Your task to perform on an android device: turn pop-ups off in chrome Image 0: 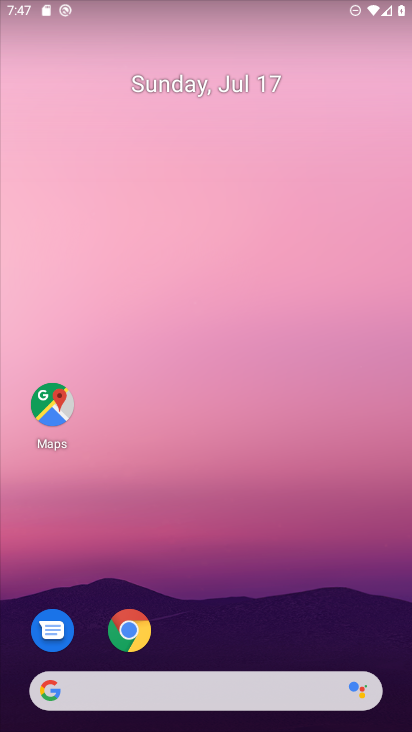
Step 0: click (126, 630)
Your task to perform on an android device: turn pop-ups off in chrome Image 1: 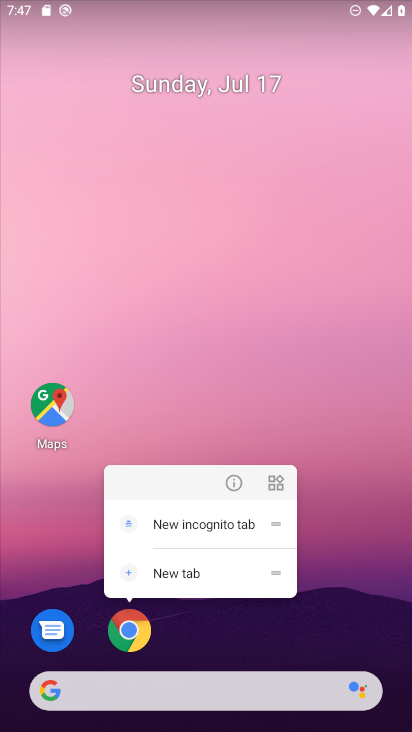
Step 1: click (128, 646)
Your task to perform on an android device: turn pop-ups off in chrome Image 2: 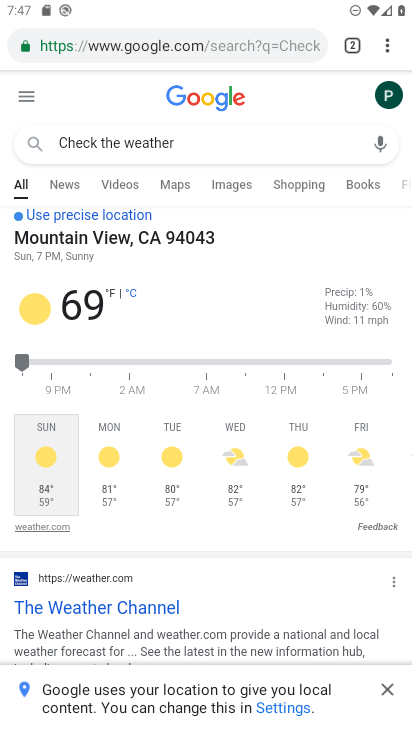
Step 2: click (391, 36)
Your task to perform on an android device: turn pop-ups off in chrome Image 3: 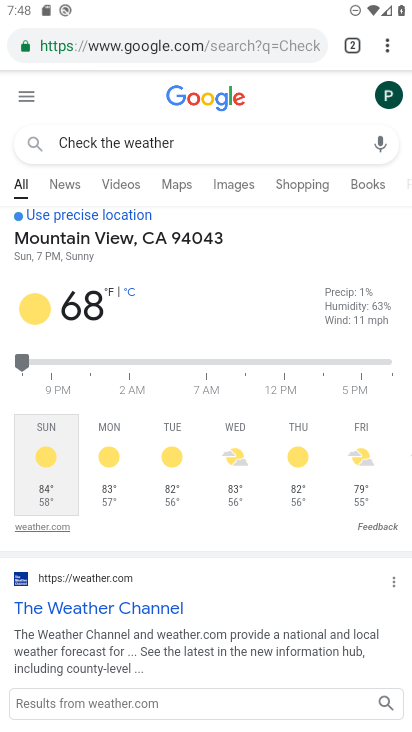
Step 3: click (378, 51)
Your task to perform on an android device: turn pop-ups off in chrome Image 4: 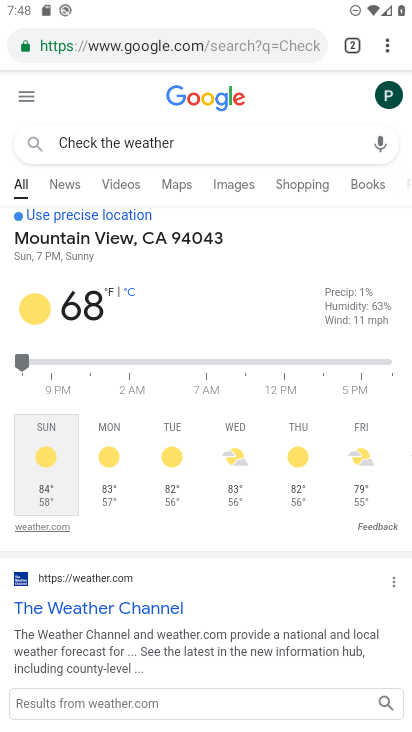
Step 4: click (387, 36)
Your task to perform on an android device: turn pop-ups off in chrome Image 5: 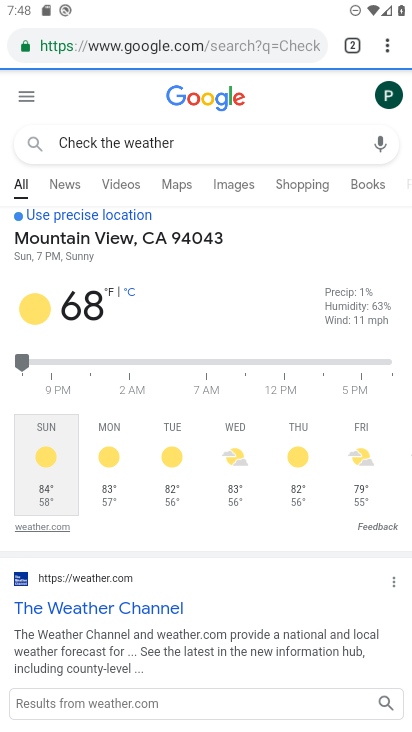
Step 5: click (391, 31)
Your task to perform on an android device: turn pop-ups off in chrome Image 6: 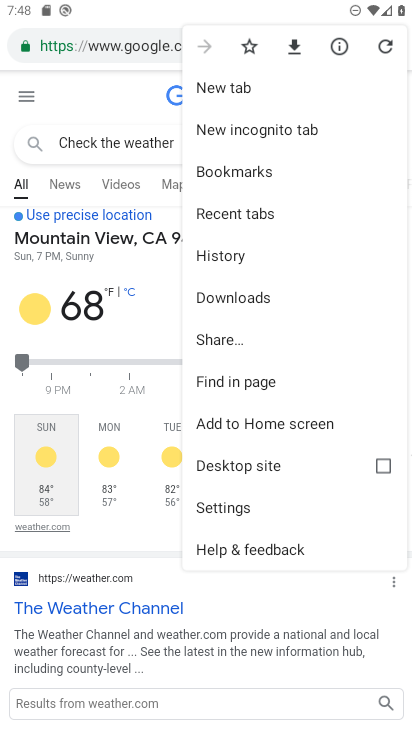
Step 6: click (248, 512)
Your task to perform on an android device: turn pop-ups off in chrome Image 7: 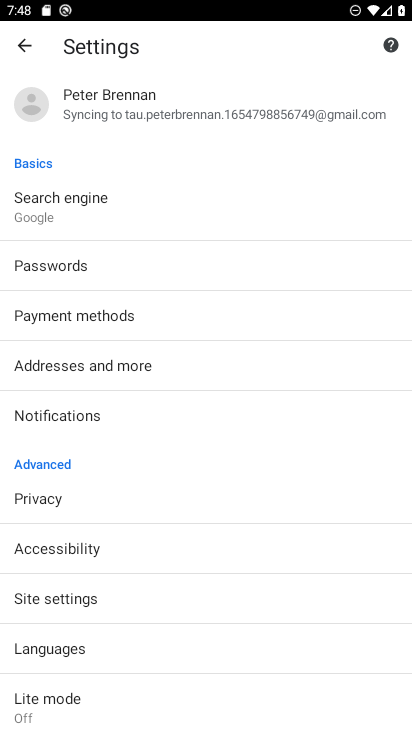
Step 7: click (106, 598)
Your task to perform on an android device: turn pop-ups off in chrome Image 8: 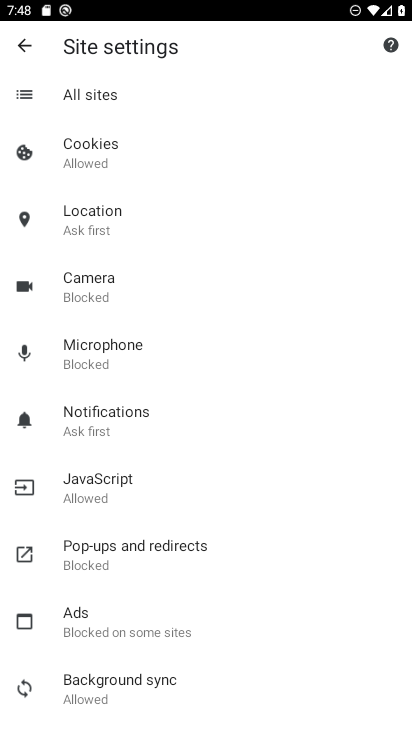
Step 8: click (136, 554)
Your task to perform on an android device: turn pop-ups off in chrome Image 9: 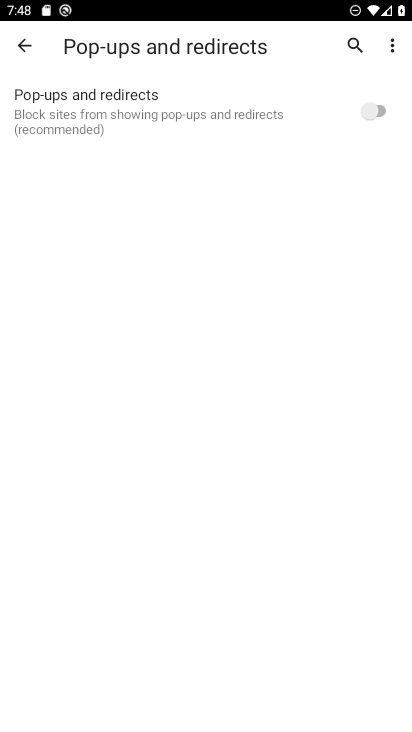
Step 9: task complete